Your task to perform on an android device: Toggle the flashlight Image 0: 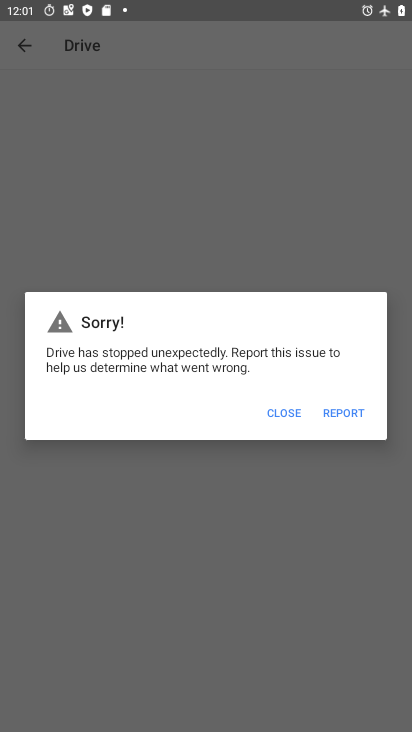
Step 0: press home button
Your task to perform on an android device: Toggle the flashlight Image 1: 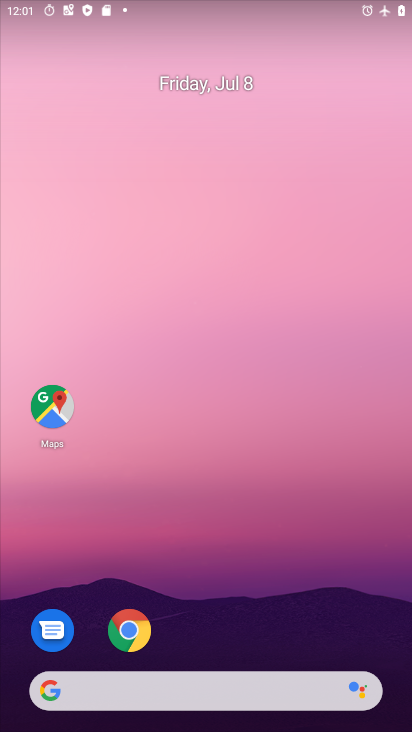
Step 1: drag from (223, 599) to (222, 352)
Your task to perform on an android device: Toggle the flashlight Image 2: 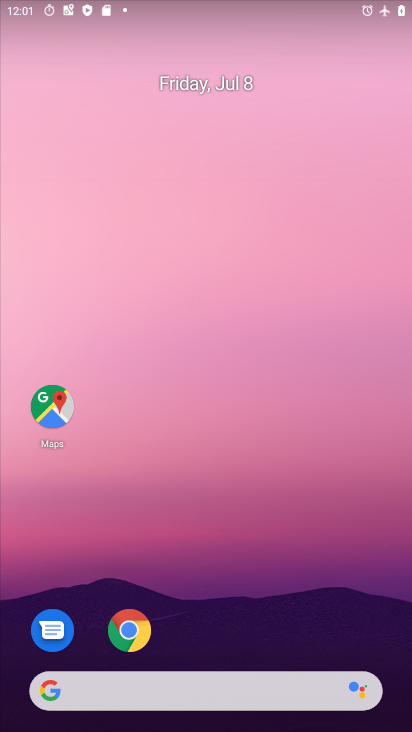
Step 2: drag from (230, 637) to (230, 202)
Your task to perform on an android device: Toggle the flashlight Image 3: 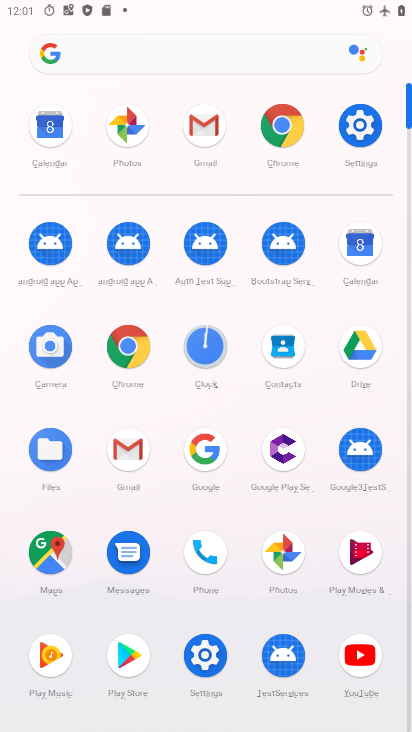
Step 3: click (339, 121)
Your task to perform on an android device: Toggle the flashlight Image 4: 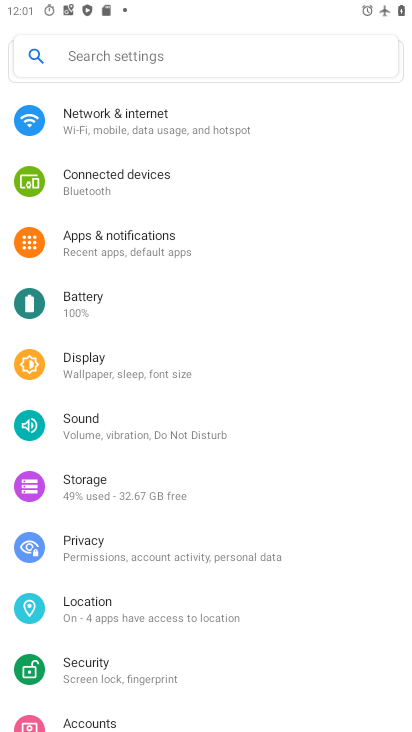
Step 4: task complete